Your task to perform on an android device: Turn on the flashlight Image 0: 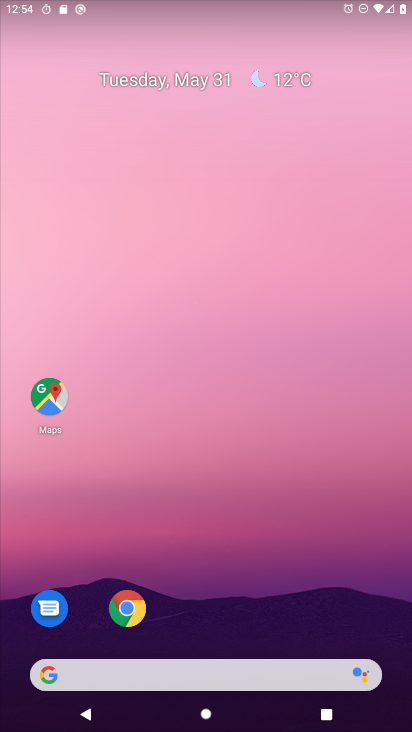
Step 0: drag from (212, 4) to (223, 699)
Your task to perform on an android device: Turn on the flashlight Image 1: 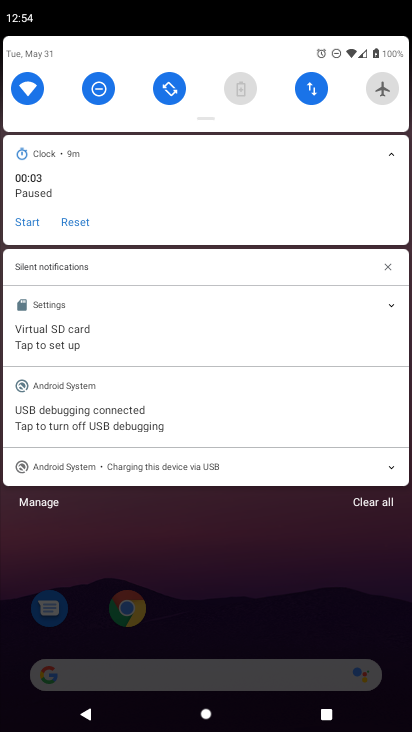
Step 1: task complete